Your task to perform on an android device: delete location history Image 0: 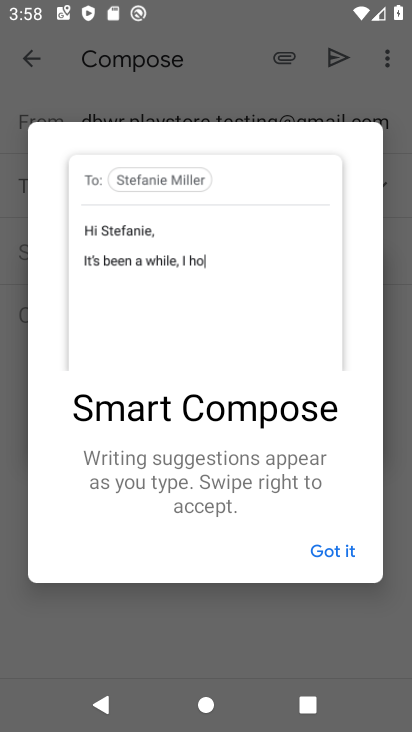
Step 0: press home button
Your task to perform on an android device: delete location history Image 1: 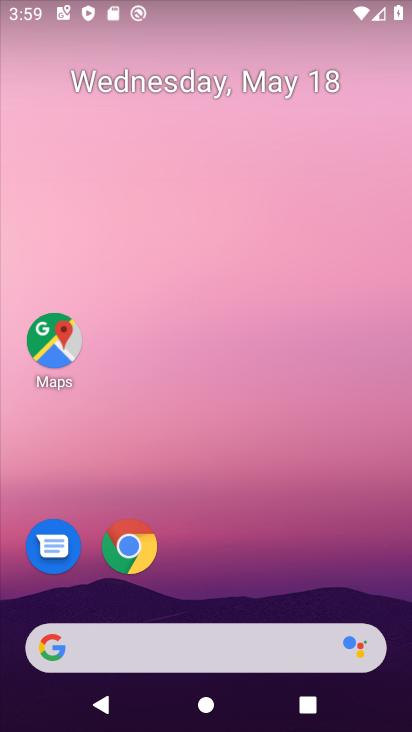
Step 1: click (55, 356)
Your task to perform on an android device: delete location history Image 2: 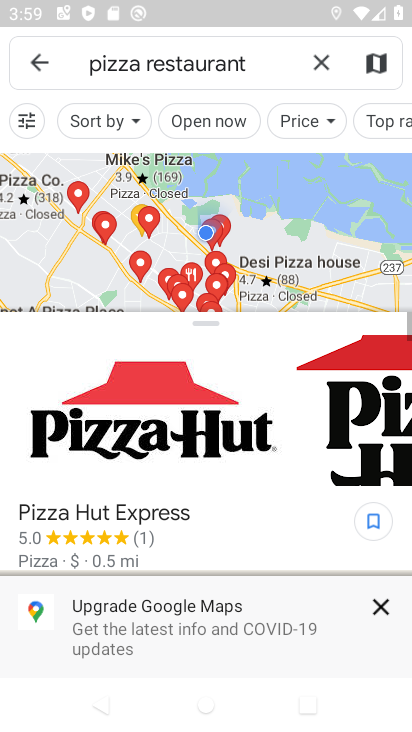
Step 2: click (27, 59)
Your task to perform on an android device: delete location history Image 3: 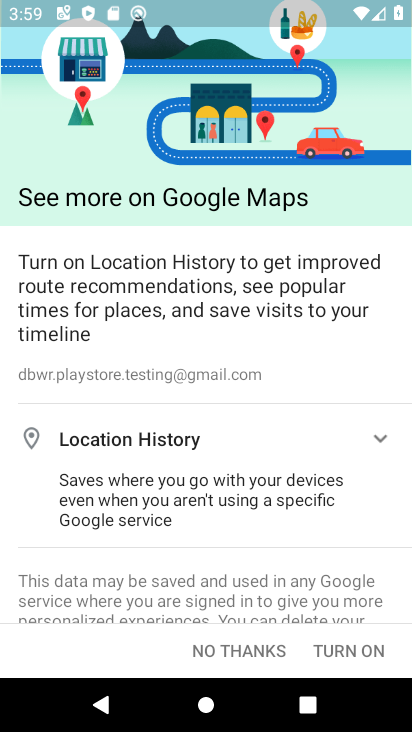
Step 3: click (259, 648)
Your task to perform on an android device: delete location history Image 4: 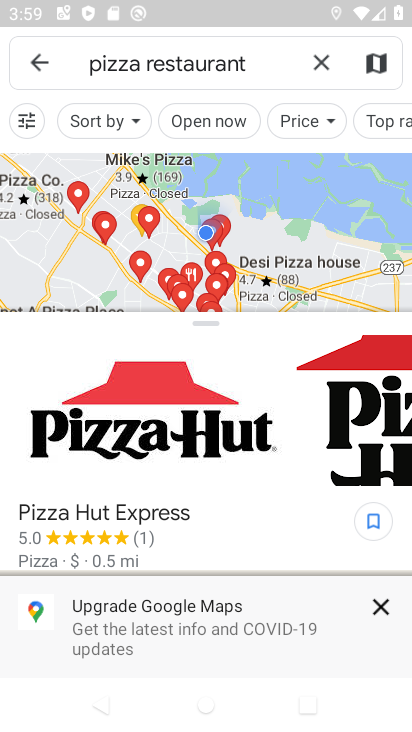
Step 4: click (380, 604)
Your task to perform on an android device: delete location history Image 5: 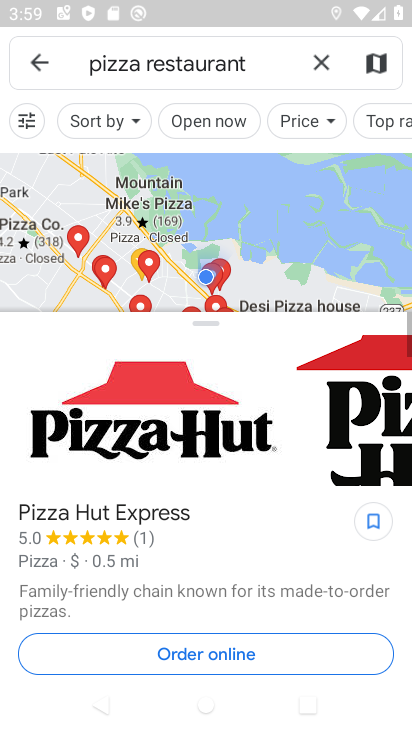
Step 5: click (38, 63)
Your task to perform on an android device: delete location history Image 6: 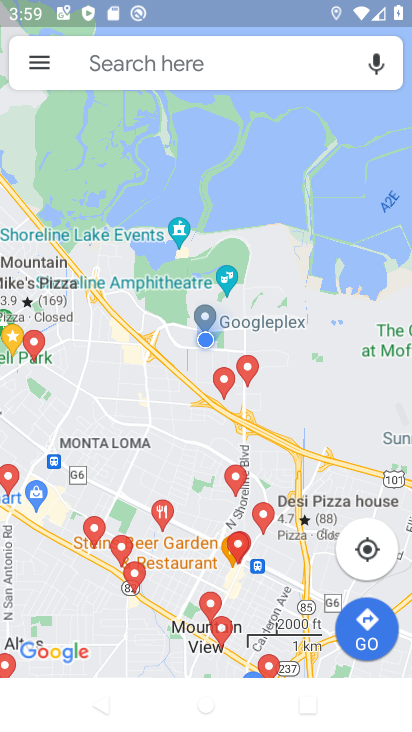
Step 6: click (38, 63)
Your task to perform on an android device: delete location history Image 7: 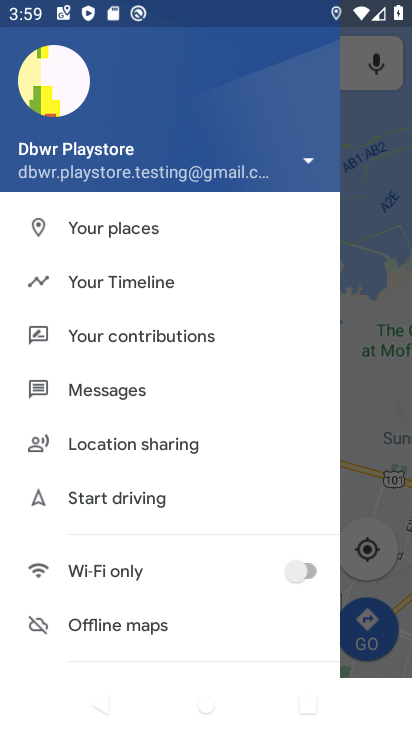
Step 7: click (163, 285)
Your task to perform on an android device: delete location history Image 8: 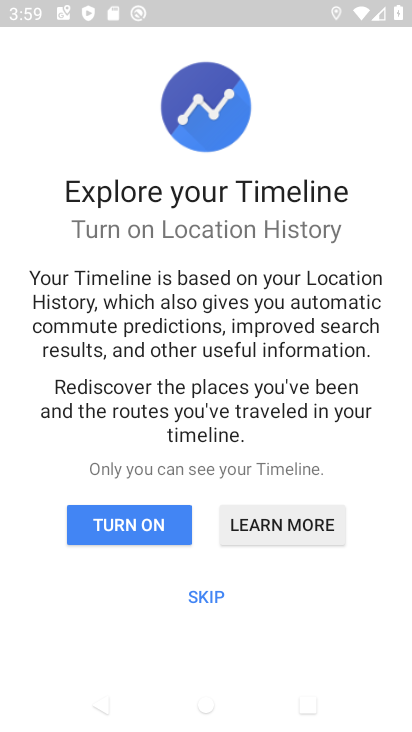
Step 8: click (197, 601)
Your task to perform on an android device: delete location history Image 9: 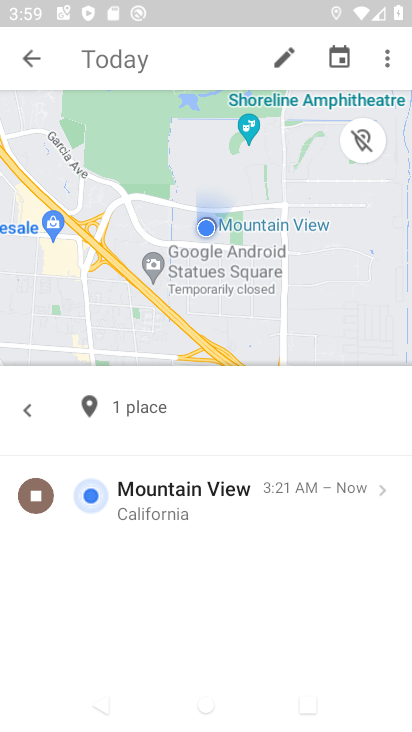
Step 9: click (388, 52)
Your task to perform on an android device: delete location history Image 10: 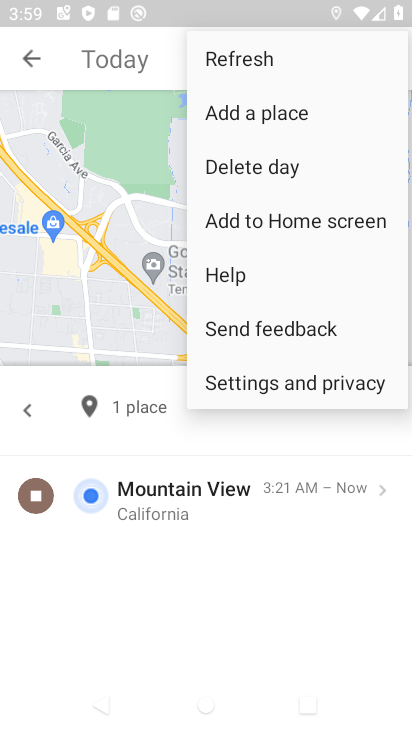
Step 10: click (274, 380)
Your task to perform on an android device: delete location history Image 11: 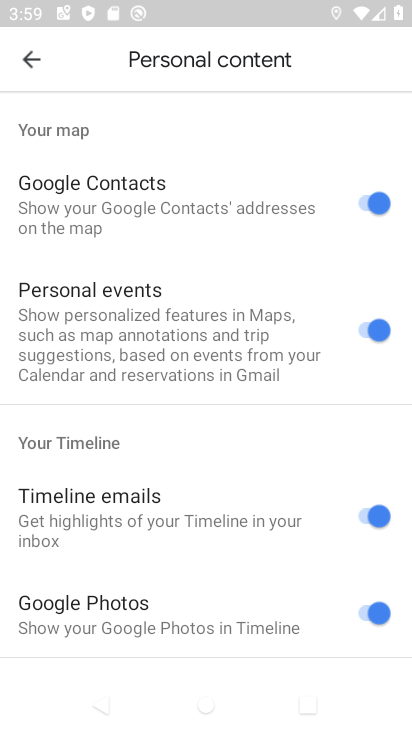
Step 11: drag from (173, 558) to (209, 248)
Your task to perform on an android device: delete location history Image 12: 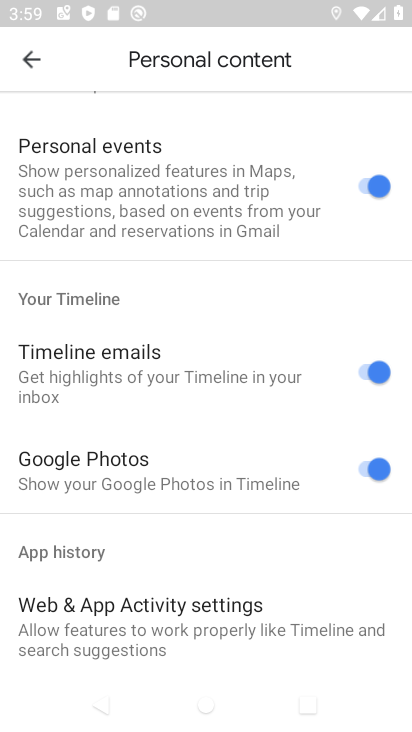
Step 12: drag from (209, 591) to (269, 305)
Your task to perform on an android device: delete location history Image 13: 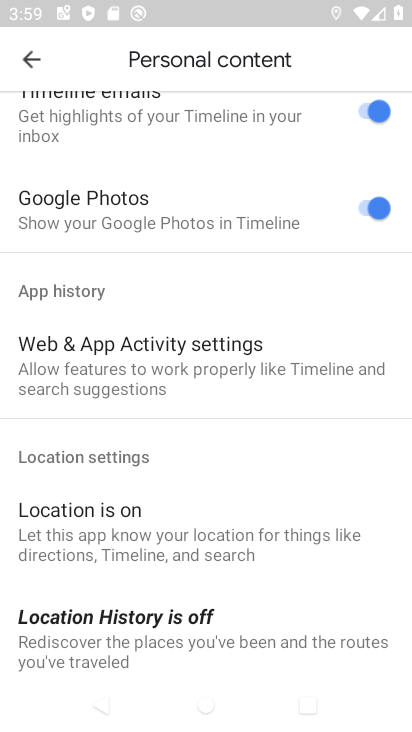
Step 13: drag from (201, 593) to (253, 282)
Your task to perform on an android device: delete location history Image 14: 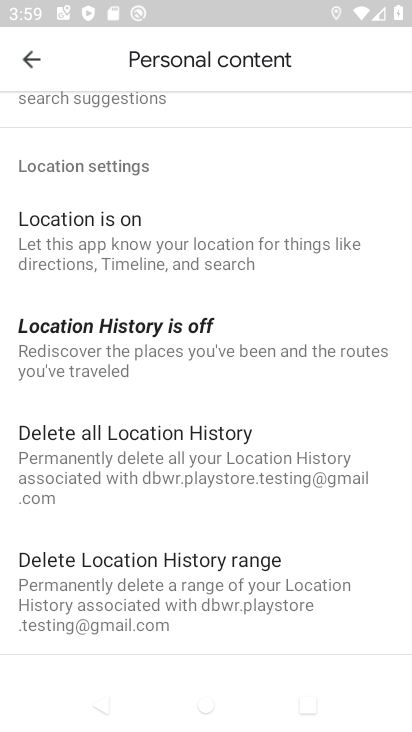
Step 14: click (163, 456)
Your task to perform on an android device: delete location history Image 15: 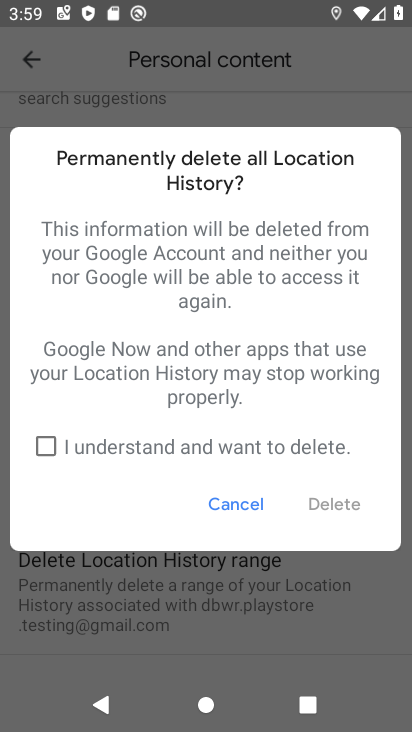
Step 15: click (125, 443)
Your task to perform on an android device: delete location history Image 16: 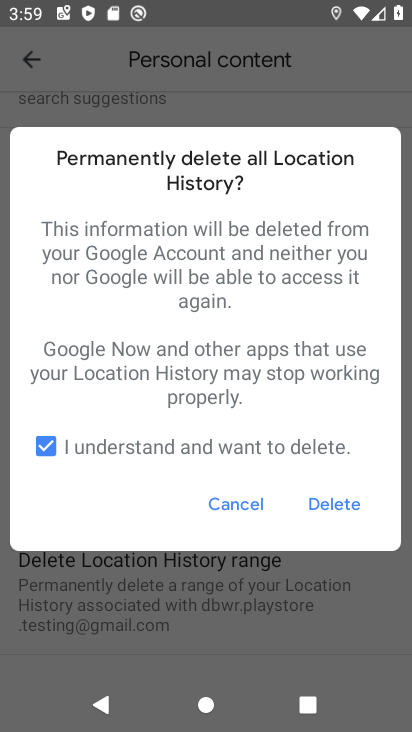
Step 16: click (342, 506)
Your task to perform on an android device: delete location history Image 17: 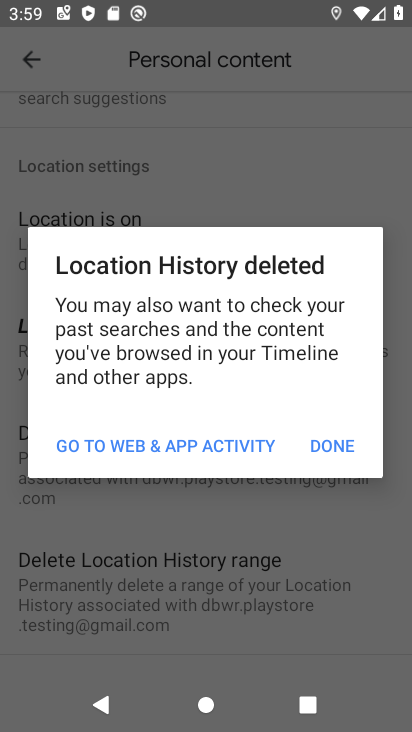
Step 17: click (324, 434)
Your task to perform on an android device: delete location history Image 18: 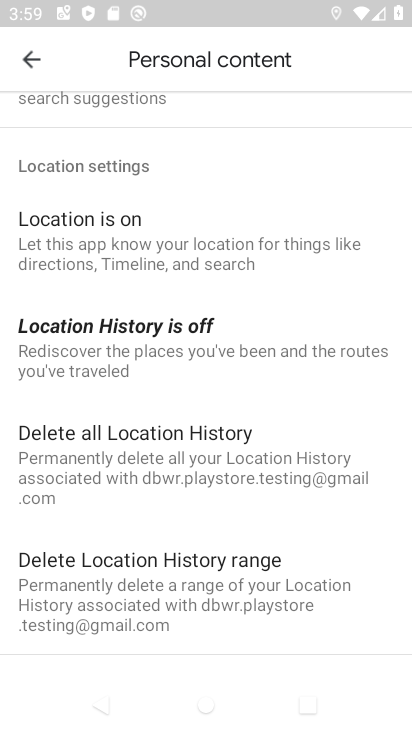
Step 18: task complete